Your task to perform on an android device: What is the news today? Image 0: 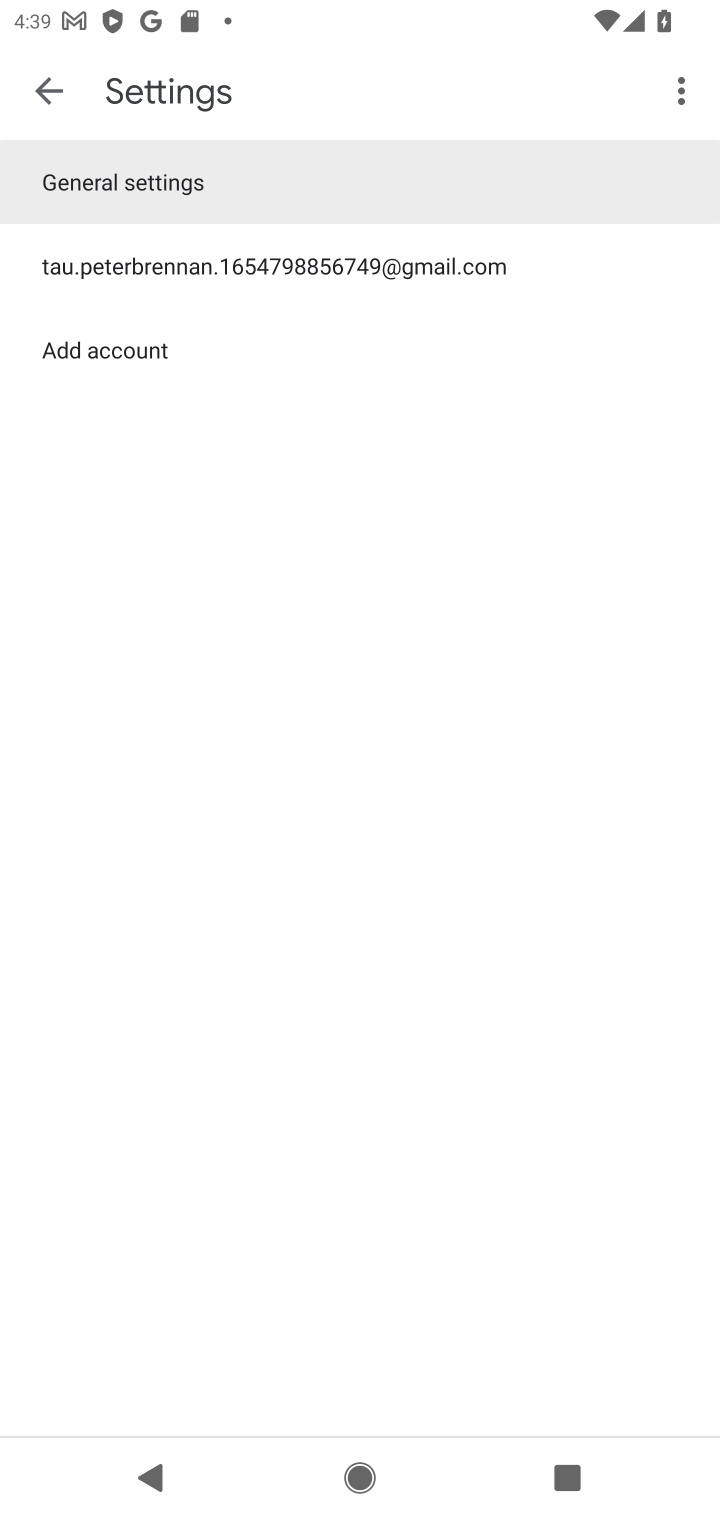
Step 0: task complete